Your task to perform on an android device: Open Reddit.com Image 0: 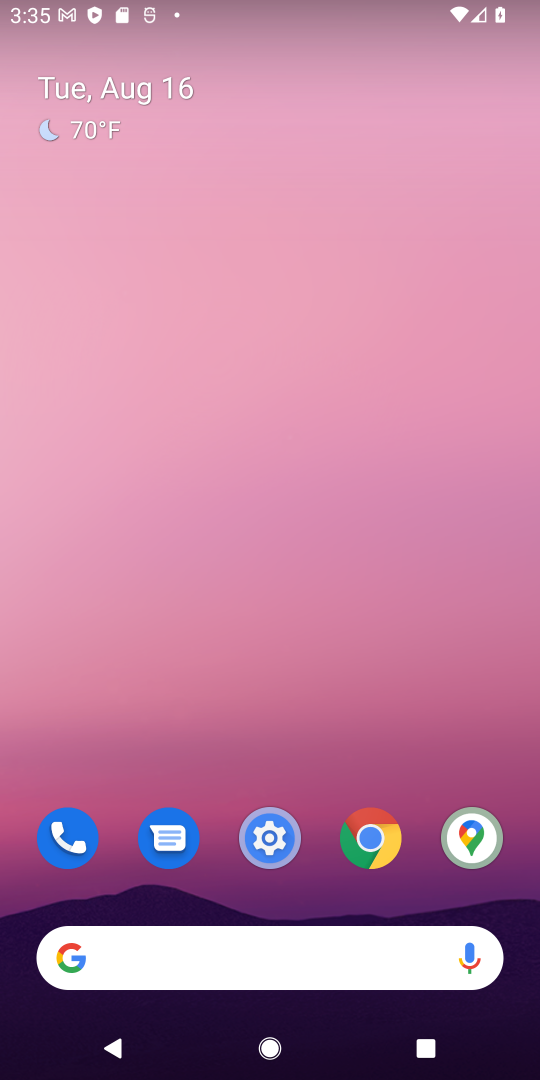
Step 0: click (349, 858)
Your task to perform on an android device: Open Reddit.com Image 1: 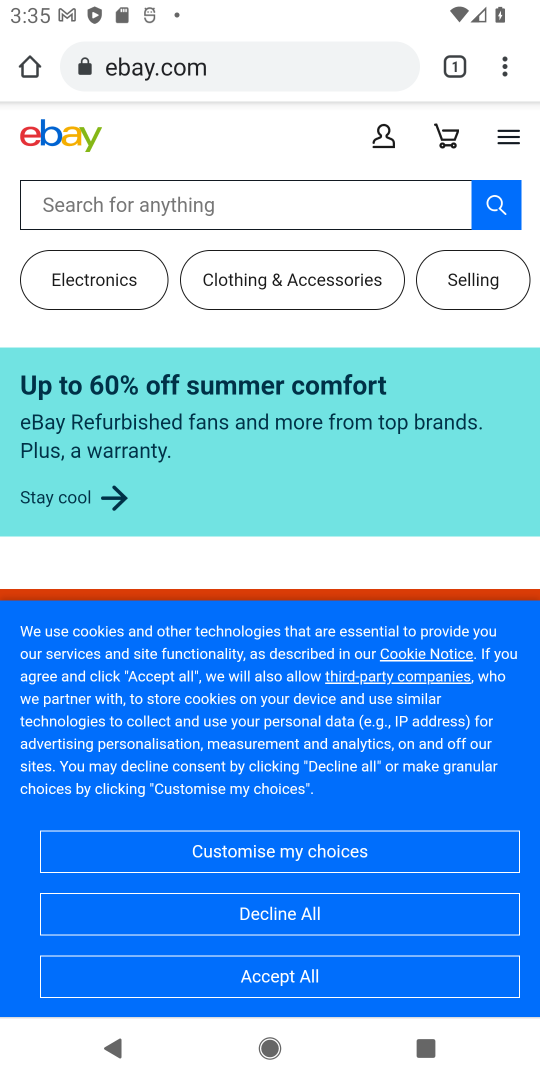
Step 1: click (207, 75)
Your task to perform on an android device: Open Reddit.com Image 2: 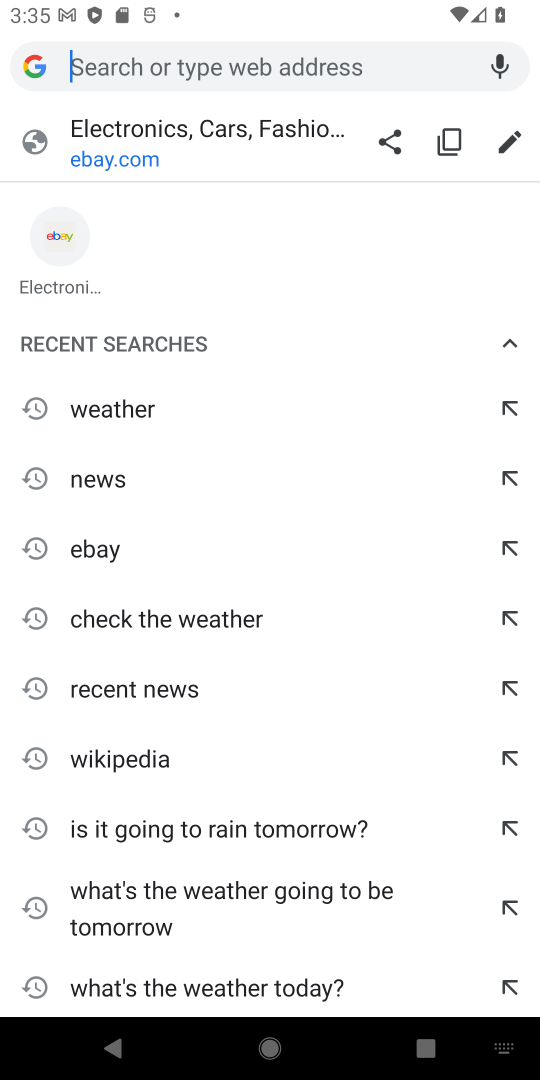
Step 2: type "reddit.com"
Your task to perform on an android device: Open Reddit.com Image 3: 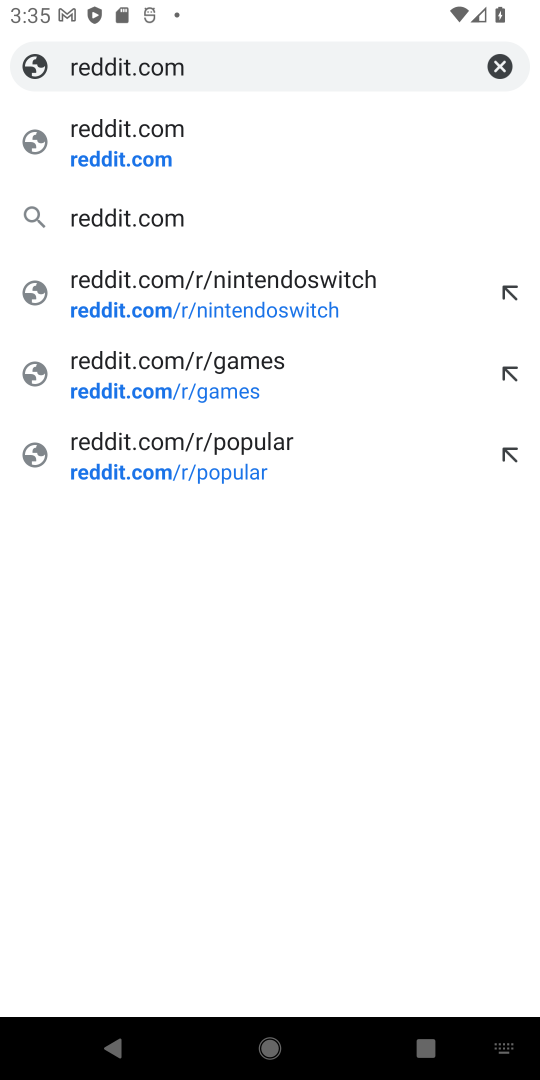
Step 3: click (169, 149)
Your task to perform on an android device: Open Reddit.com Image 4: 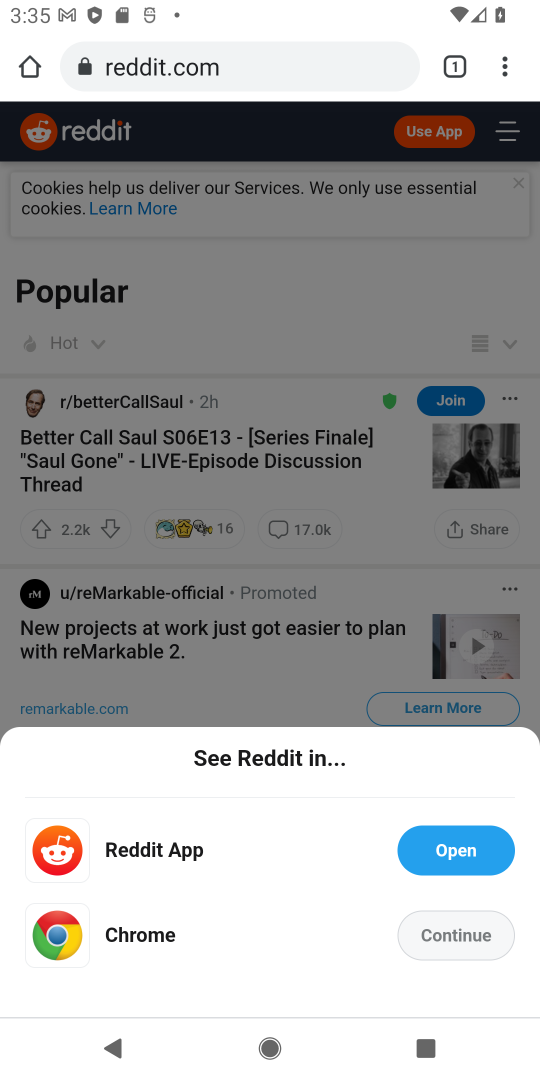
Step 4: task complete